Your task to perform on an android device: Go to internet settings Image 0: 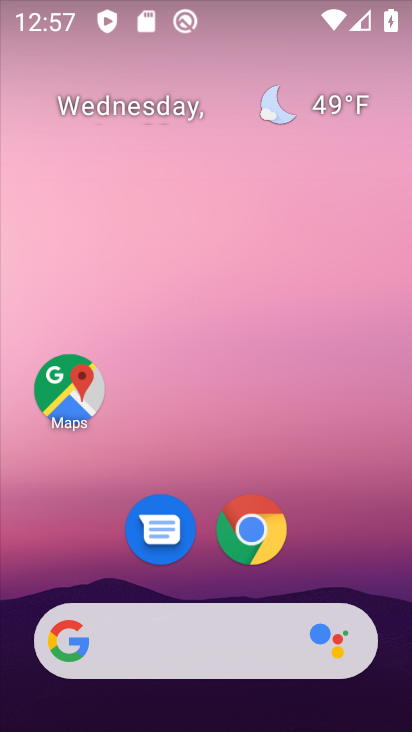
Step 0: drag from (317, 665) to (367, 0)
Your task to perform on an android device: Go to internet settings Image 1: 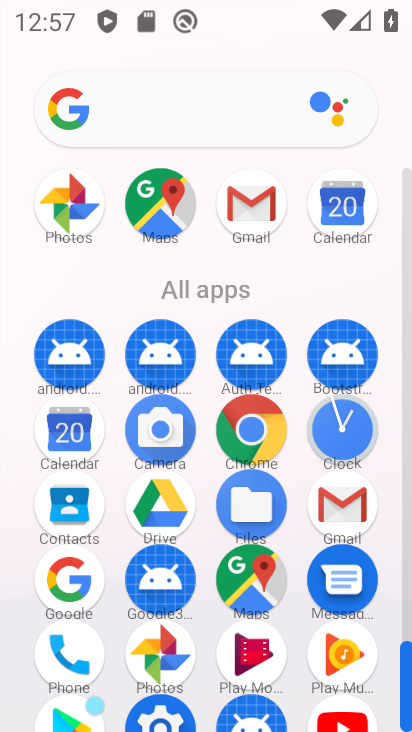
Step 1: drag from (286, 596) to (297, 134)
Your task to perform on an android device: Go to internet settings Image 2: 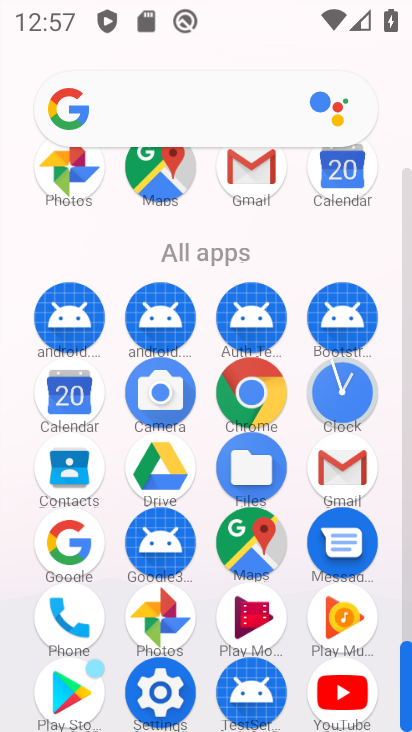
Step 2: click (181, 703)
Your task to perform on an android device: Go to internet settings Image 3: 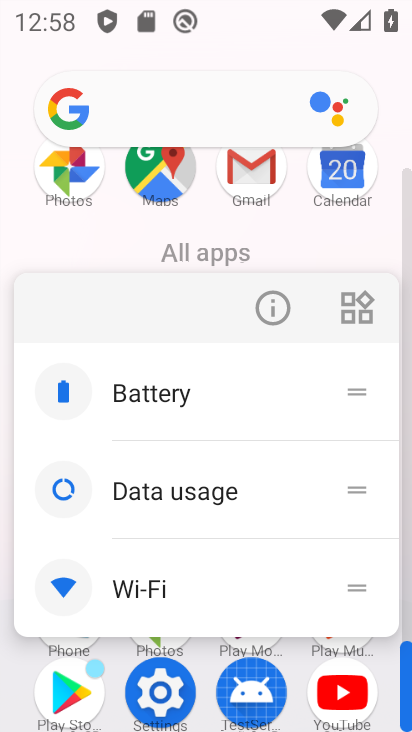
Step 3: click (293, 251)
Your task to perform on an android device: Go to internet settings Image 4: 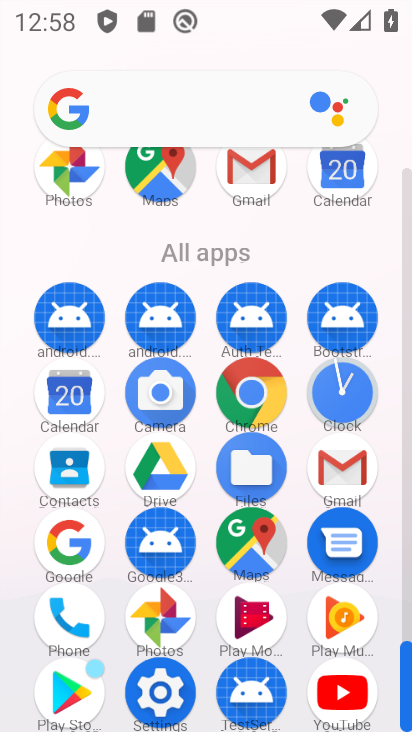
Step 4: click (167, 701)
Your task to perform on an android device: Go to internet settings Image 5: 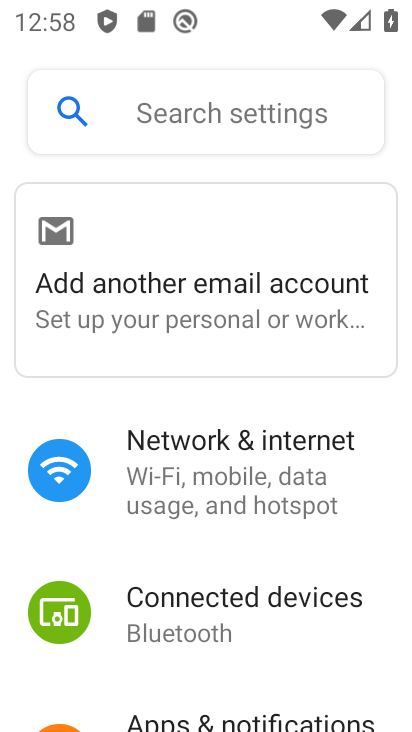
Step 5: click (279, 266)
Your task to perform on an android device: Go to internet settings Image 6: 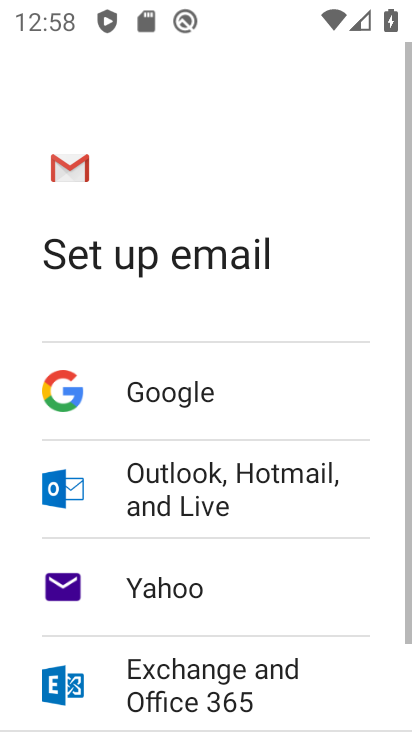
Step 6: press back button
Your task to perform on an android device: Go to internet settings Image 7: 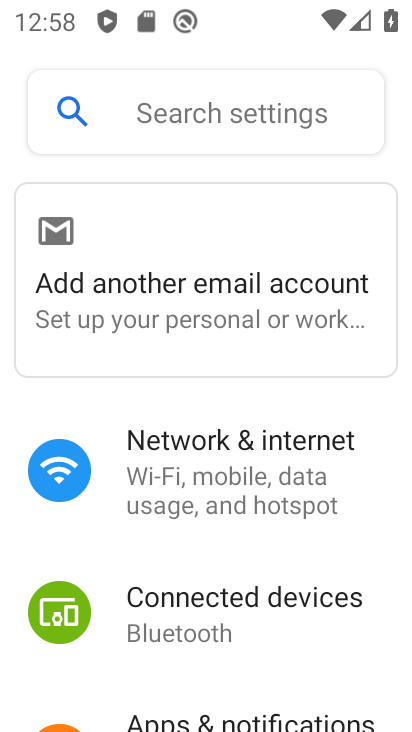
Step 7: click (236, 284)
Your task to perform on an android device: Go to internet settings Image 8: 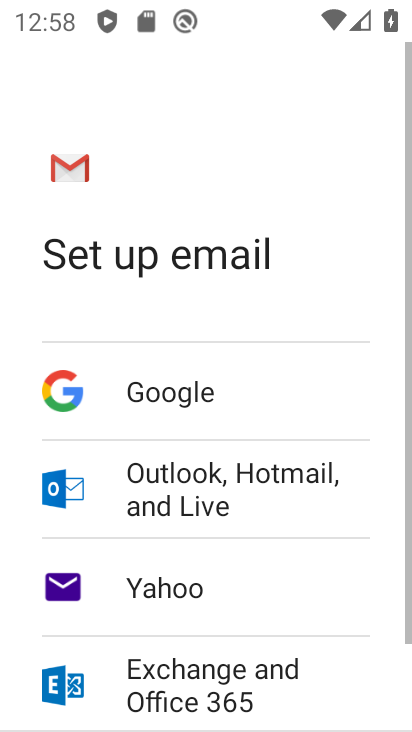
Step 8: press back button
Your task to perform on an android device: Go to internet settings Image 9: 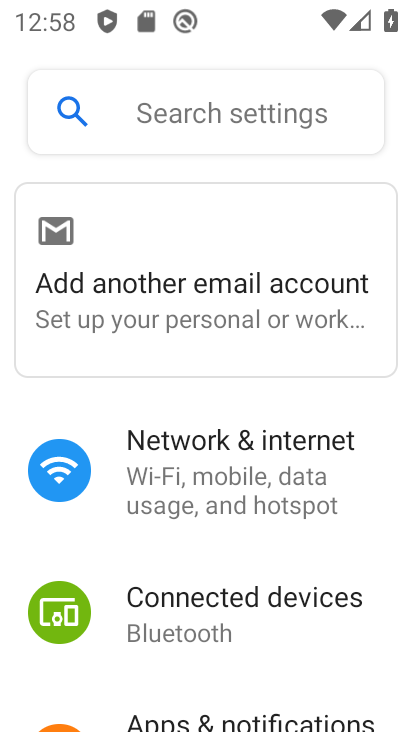
Step 9: click (252, 466)
Your task to perform on an android device: Go to internet settings Image 10: 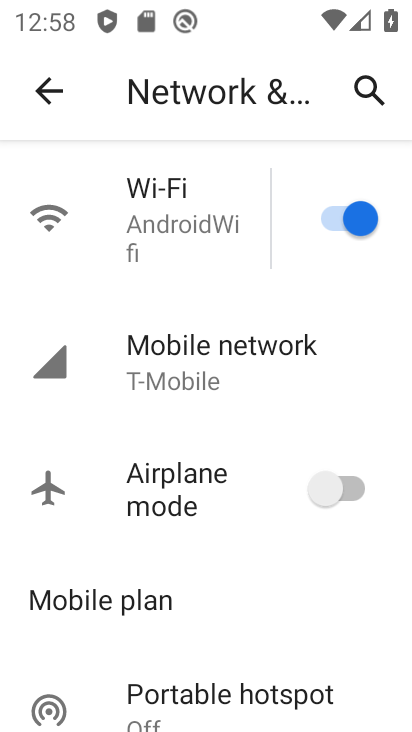
Step 10: task complete